Your task to perform on an android device: turn off smart reply in the gmail app Image 0: 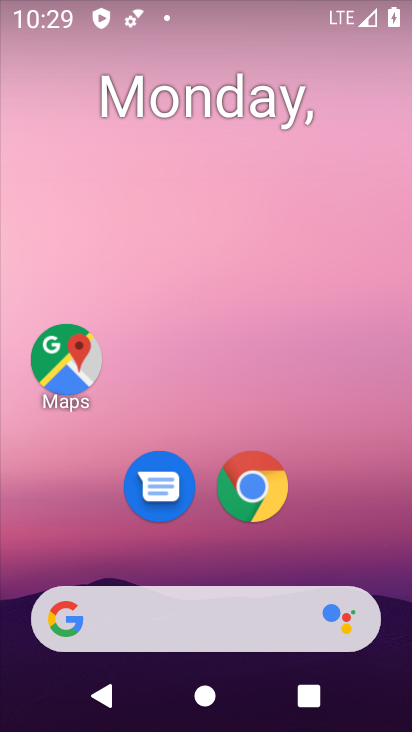
Step 0: drag from (84, 489) to (314, 160)
Your task to perform on an android device: turn off smart reply in the gmail app Image 1: 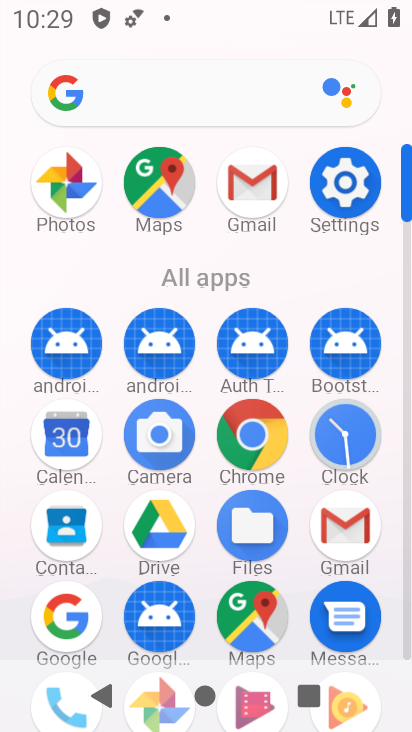
Step 1: click (256, 190)
Your task to perform on an android device: turn off smart reply in the gmail app Image 2: 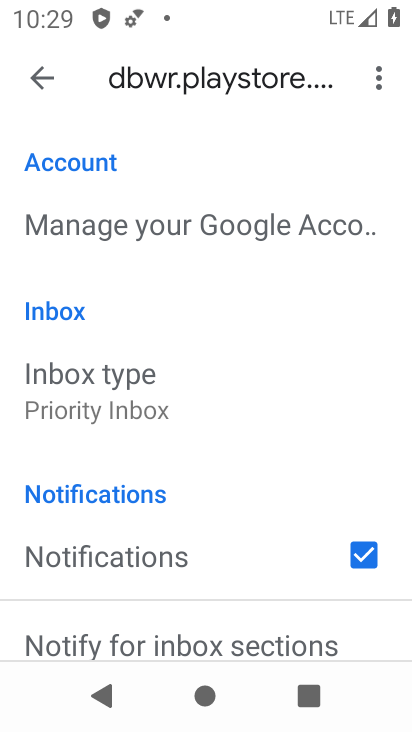
Step 2: task complete